Your task to perform on an android device: change notifications settings Image 0: 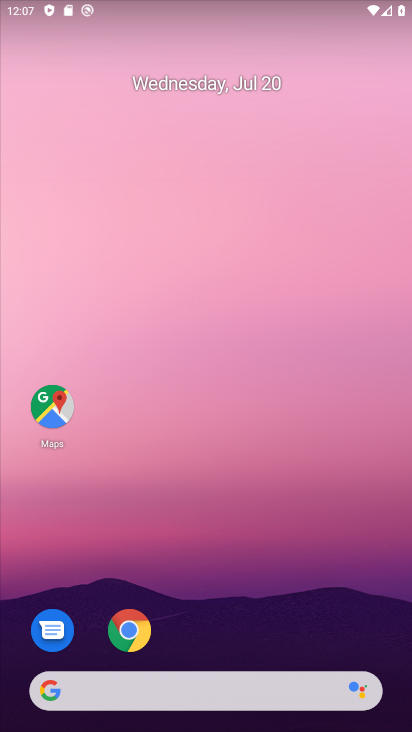
Step 0: press home button
Your task to perform on an android device: change notifications settings Image 1: 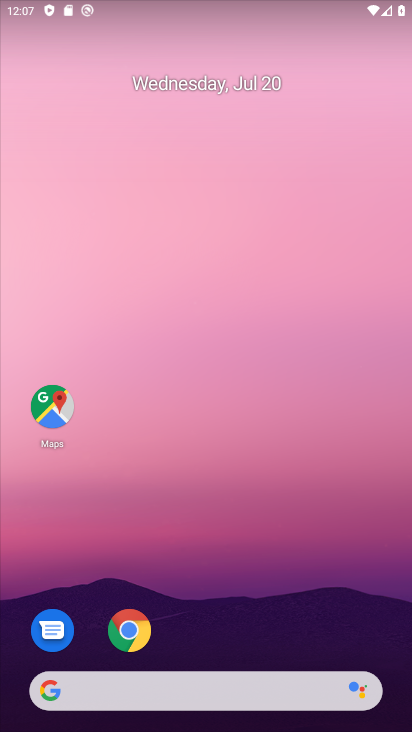
Step 1: drag from (279, 595) to (249, 1)
Your task to perform on an android device: change notifications settings Image 2: 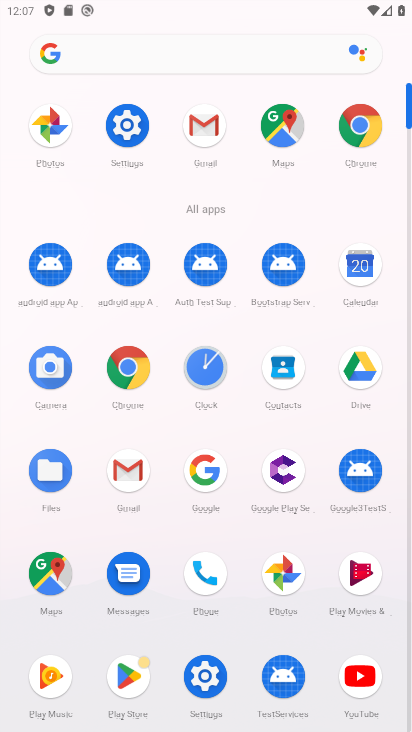
Step 2: click (129, 124)
Your task to perform on an android device: change notifications settings Image 3: 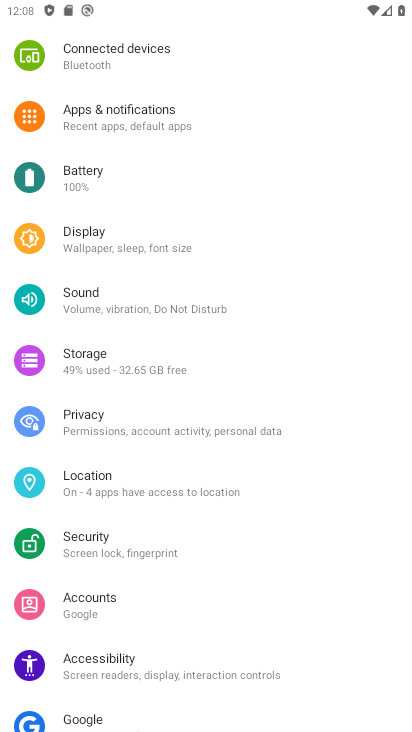
Step 3: click (108, 108)
Your task to perform on an android device: change notifications settings Image 4: 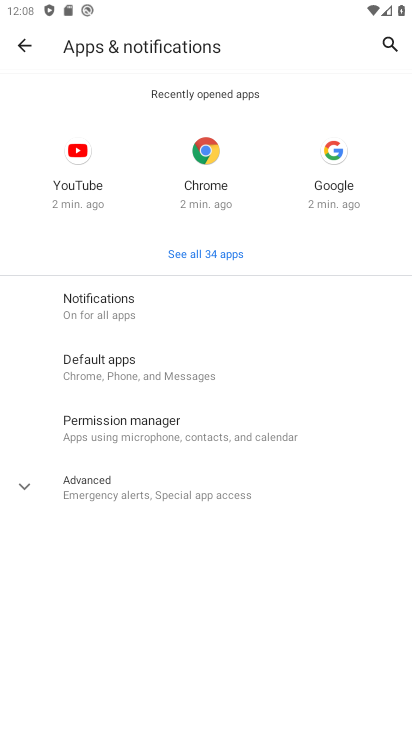
Step 4: click (67, 305)
Your task to perform on an android device: change notifications settings Image 5: 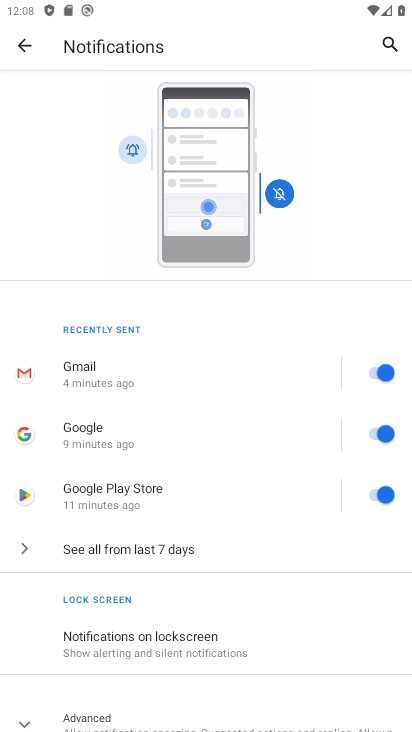
Step 5: drag from (57, 684) to (56, 338)
Your task to perform on an android device: change notifications settings Image 6: 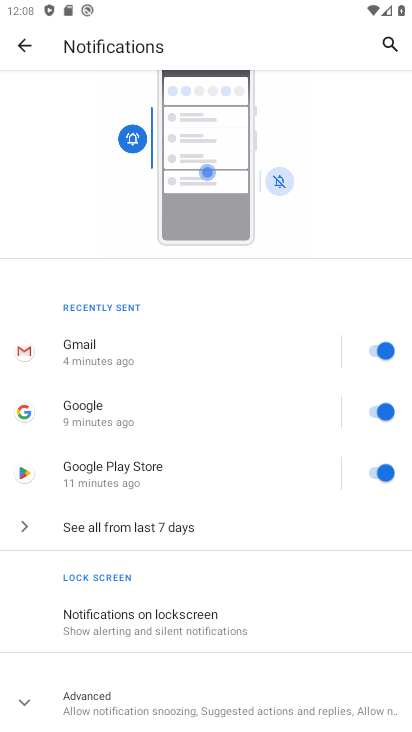
Step 6: drag from (46, 648) to (68, 281)
Your task to perform on an android device: change notifications settings Image 7: 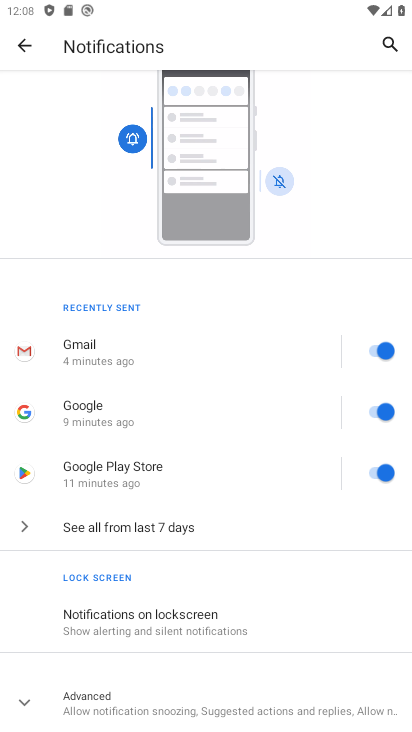
Step 7: click (273, 175)
Your task to perform on an android device: change notifications settings Image 8: 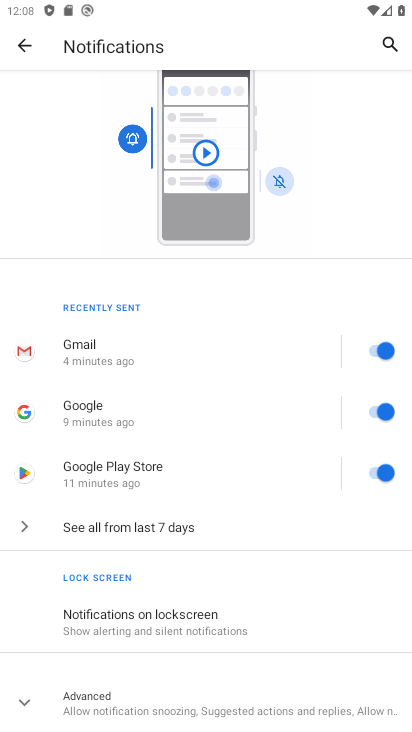
Step 8: click (284, 184)
Your task to perform on an android device: change notifications settings Image 9: 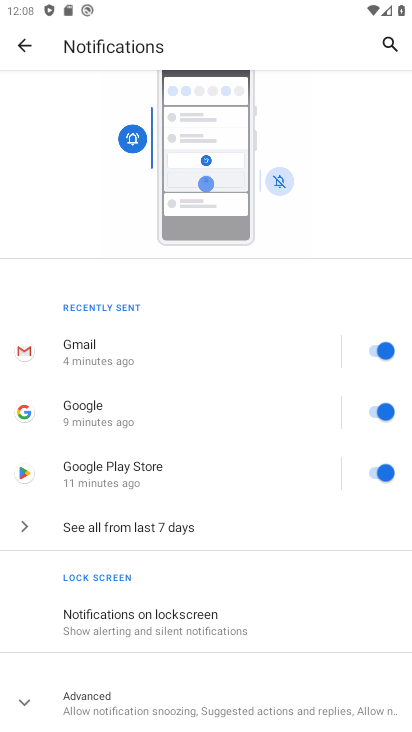
Step 9: click (131, 132)
Your task to perform on an android device: change notifications settings Image 10: 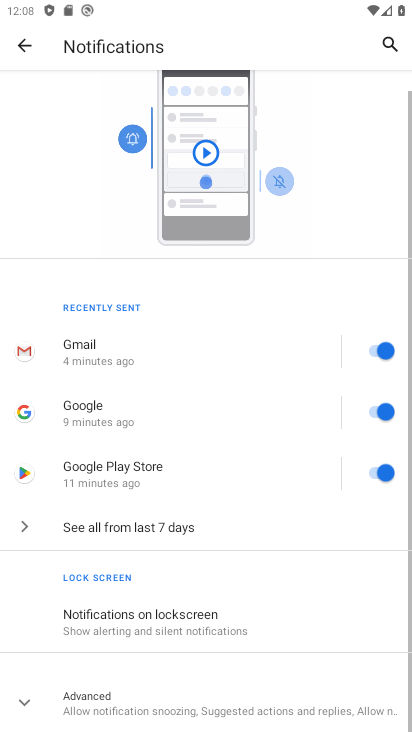
Step 10: click (129, 144)
Your task to perform on an android device: change notifications settings Image 11: 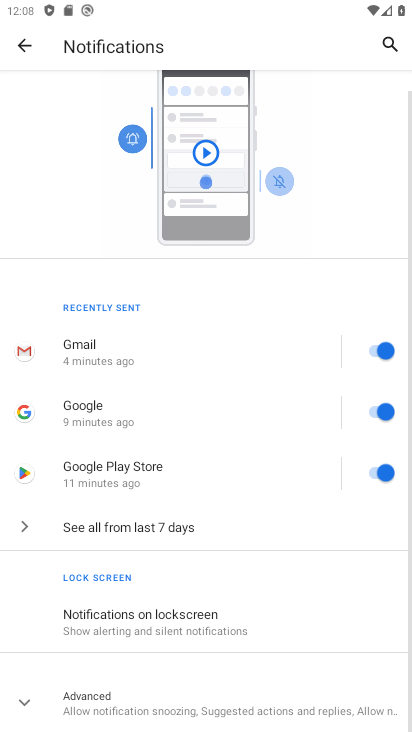
Step 11: click (129, 144)
Your task to perform on an android device: change notifications settings Image 12: 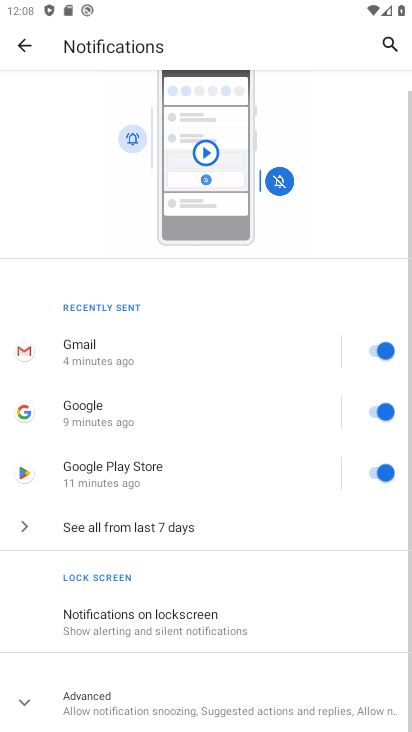
Step 12: task complete